Your task to perform on an android device: When is my next meeting? Image 0: 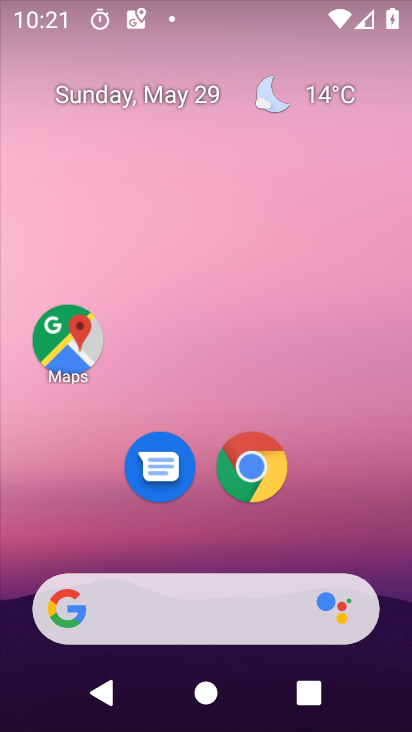
Step 0: drag from (191, 538) to (204, 178)
Your task to perform on an android device: When is my next meeting? Image 1: 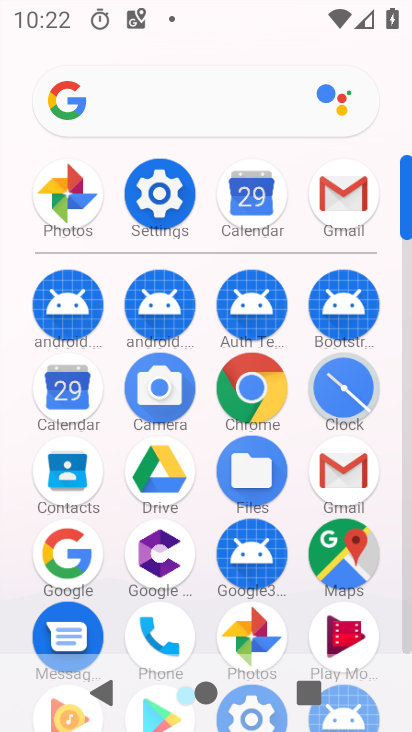
Step 1: click (238, 198)
Your task to perform on an android device: When is my next meeting? Image 2: 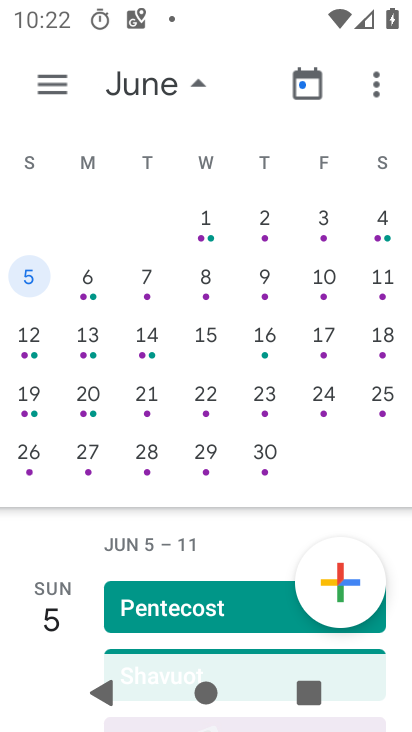
Step 2: drag from (171, 535) to (222, 191)
Your task to perform on an android device: When is my next meeting? Image 3: 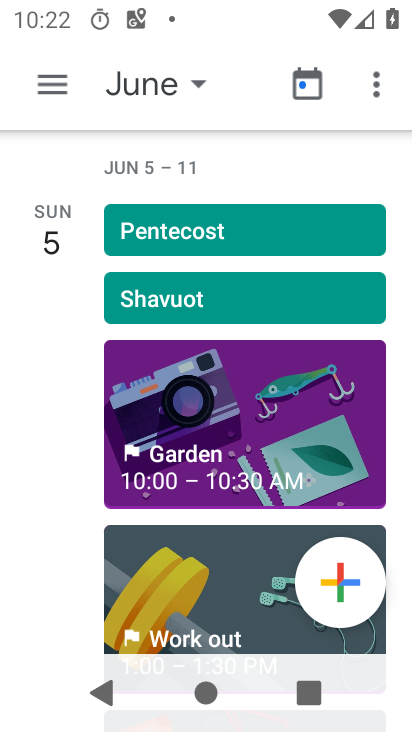
Step 3: drag from (195, 555) to (212, 267)
Your task to perform on an android device: When is my next meeting? Image 4: 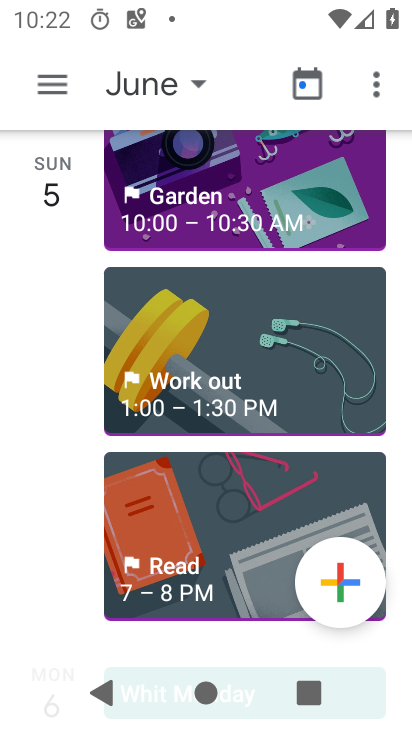
Step 4: drag from (213, 549) to (221, 235)
Your task to perform on an android device: When is my next meeting? Image 5: 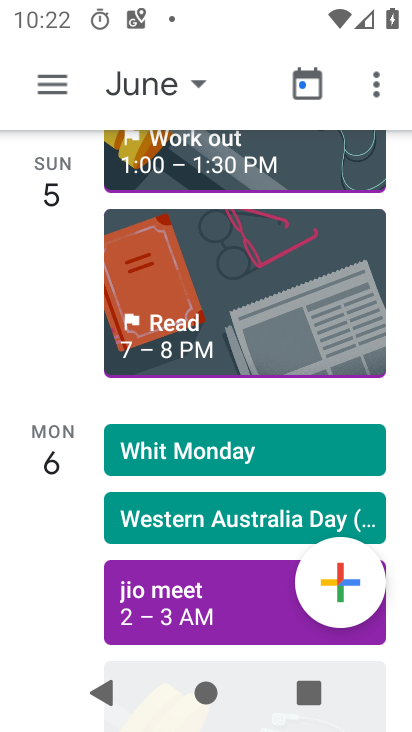
Step 5: drag from (216, 541) to (232, 240)
Your task to perform on an android device: When is my next meeting? Image 6: 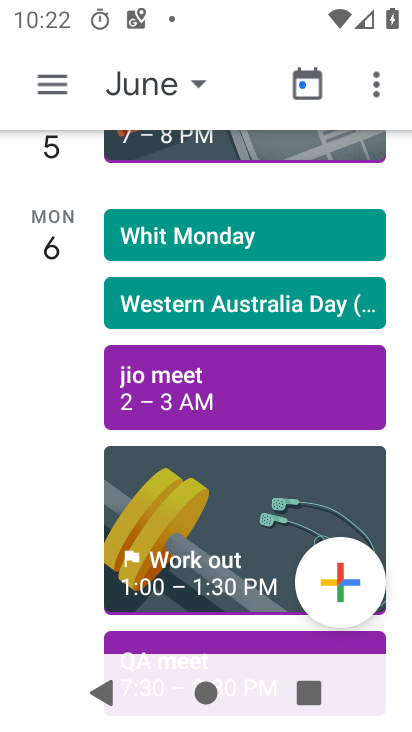
Step 6: drag from (222, 392) to (254, 188)
Your task to perform on an android device: When is my next meeting? Image 7: 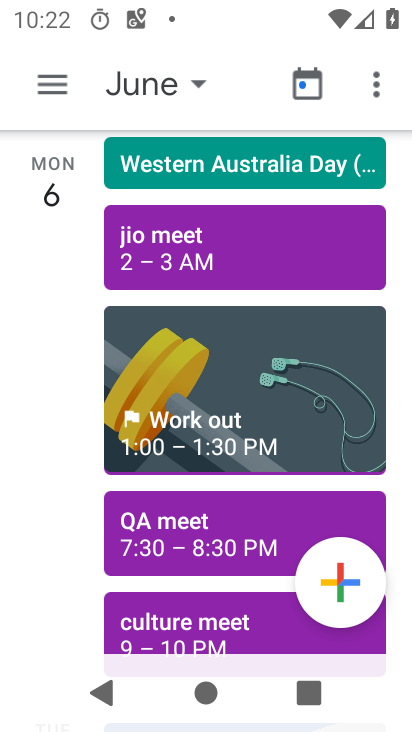
Step 7: drag from (210, 560) to (205, 426)
Your task to perform on an android device: When is my next meeting? Image 8: 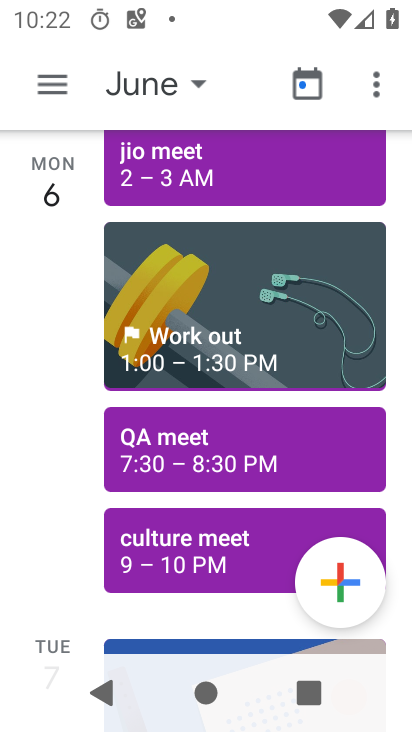
Step 8: click (196, 440)
Your task to perform on an android device: When is my next meeting? Image 9: 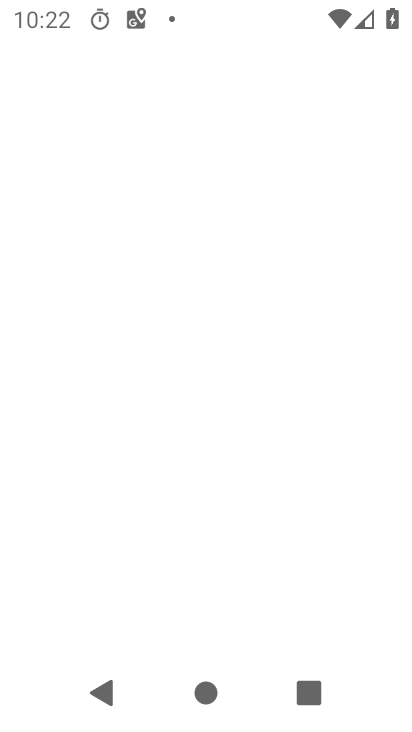
Step 9: task complete